Your task to perform on an android device: Go to network settings Image 0: 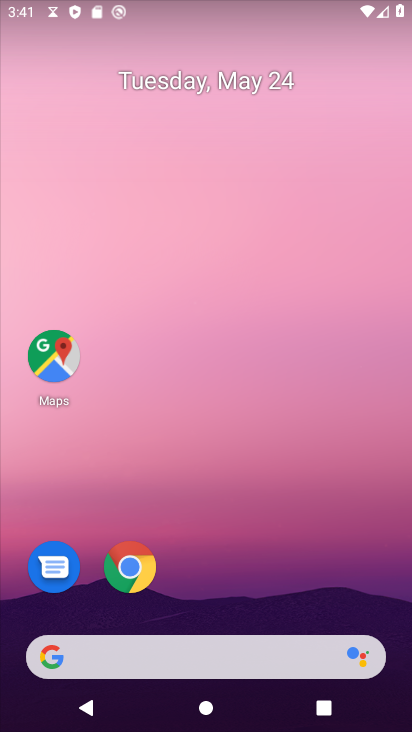
Step 0: drag from (211, 624) to (293, 279)
Your task to perform on an android device: Go to network settings Image 1: 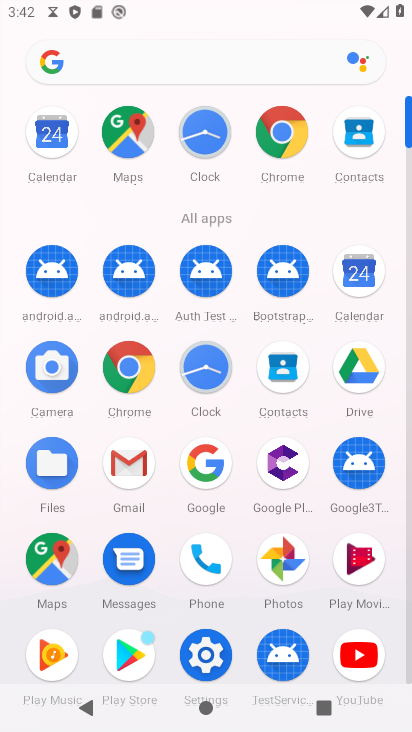
Step 1: click (204, 638)
Your task to perform on an android device: Go to network settings Image 2: 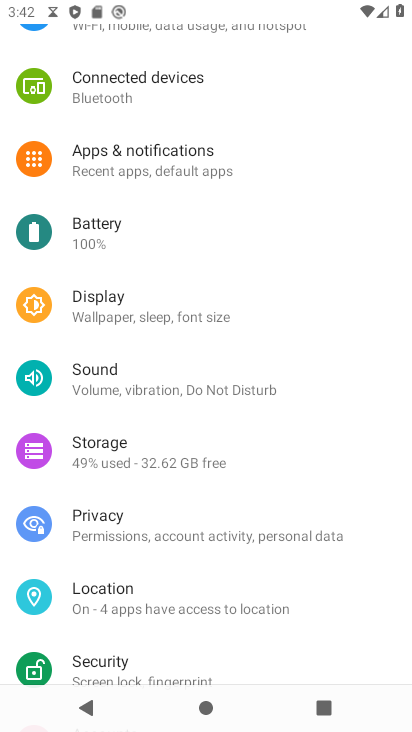
Step 2: drag from (212, 136) to (208, 404)
Your task to perform on an android device: Go to network settings Image 3: 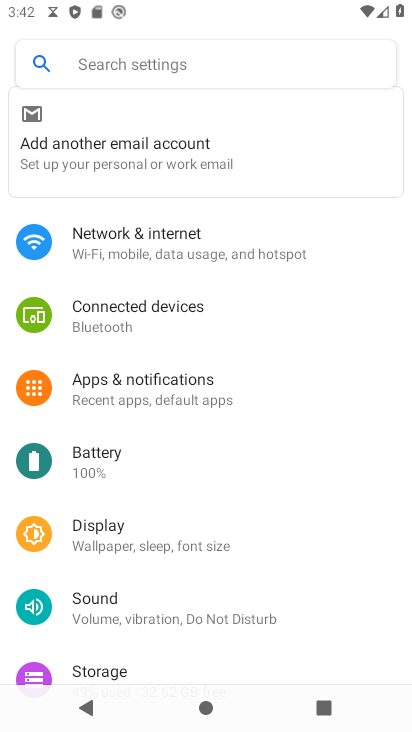
Step 3: click (178, 255)
Your task to perform on an android device: Go to network settings Image 4: 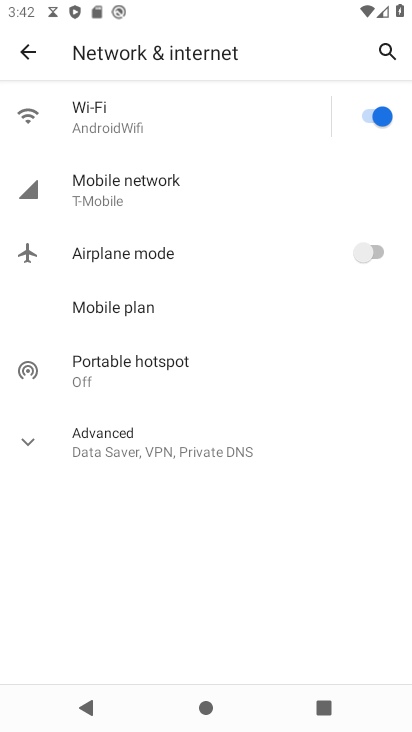
Step 4: task complete